Your task to perform on an android device: change timer sound Image 0: 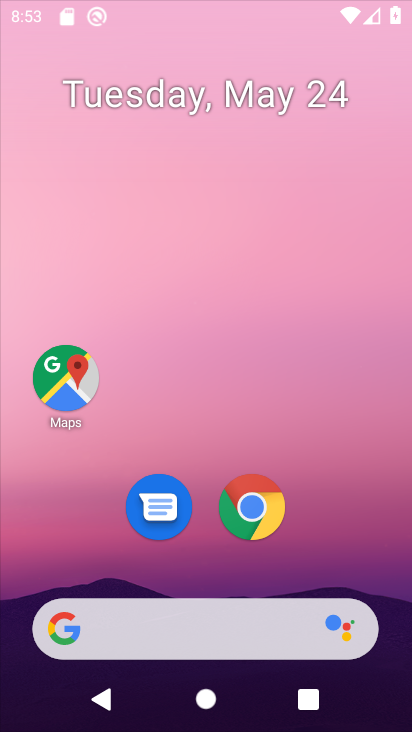
Step 0: drag from (227, 467) to (267, 226)
Your task to perform on an android device: change timer sound Image 1: 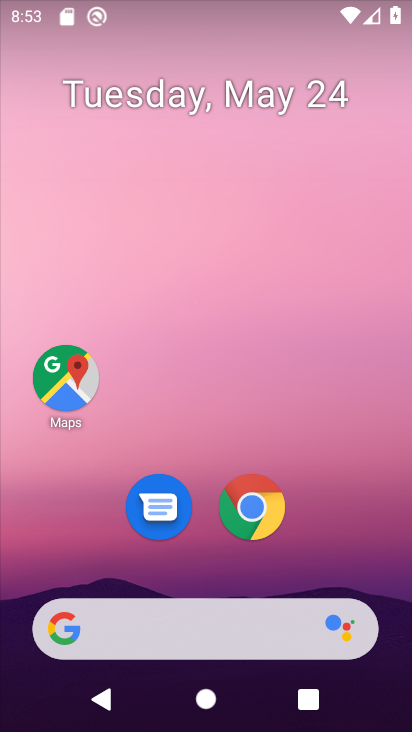
Step 1: drag from (208, 500) to (262, 137)
Your task to perform on an android device: change timer sound Image 2: 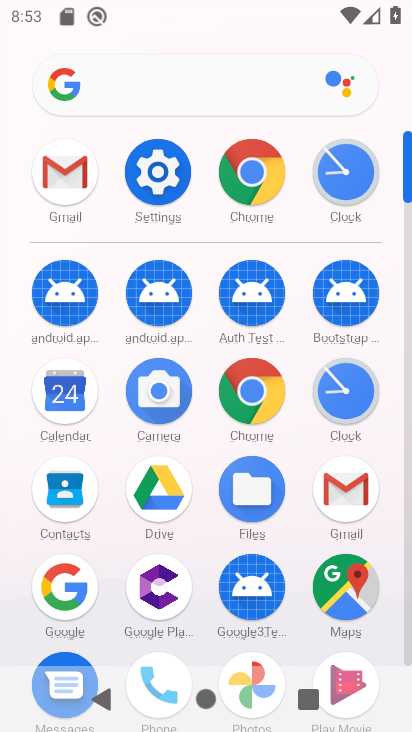
Step 2: click (340, 400)
Your task to perform on an android device: change timer sound Image 3: 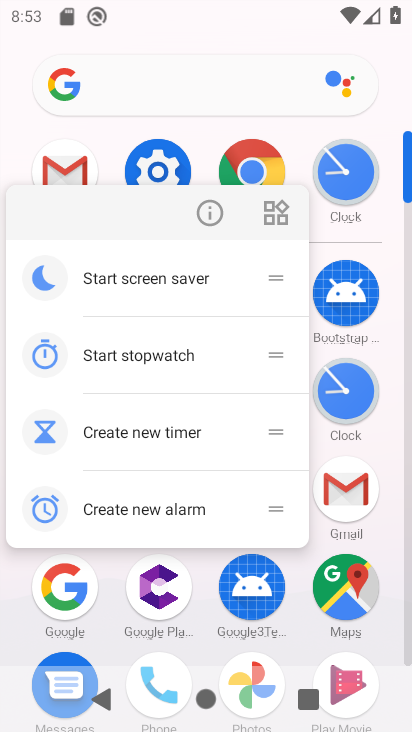
Step 3: click (218, 214)
Your task to perform on an android device: change timer sound Image 4: 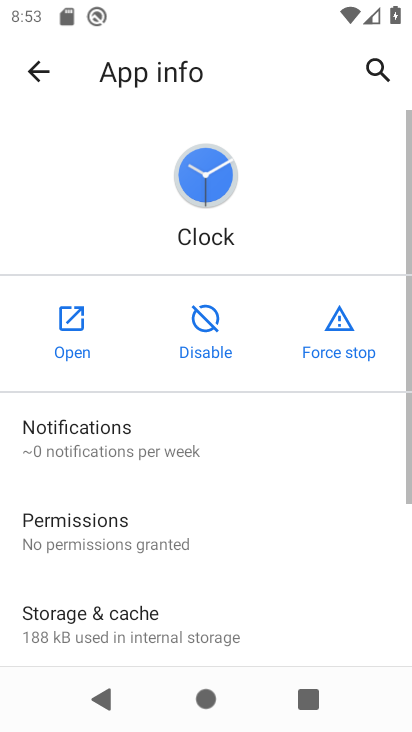
Step 4: click (73, 325)
Your task to perform on an android device: change timer sound Image 5: 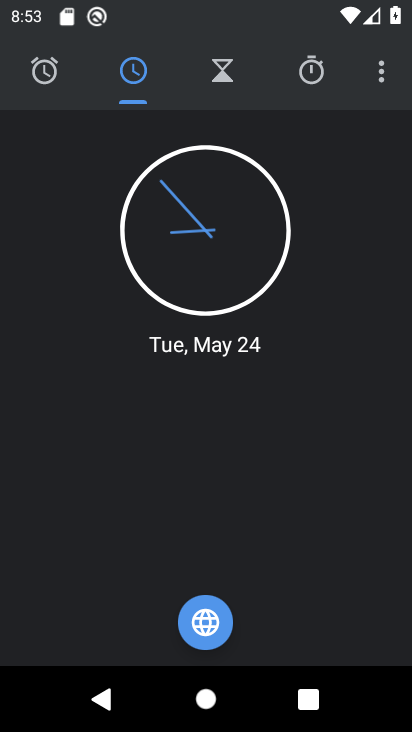
Step 5: click (381, 78)
Your task to perform on an android device: change timer sound Image 6: 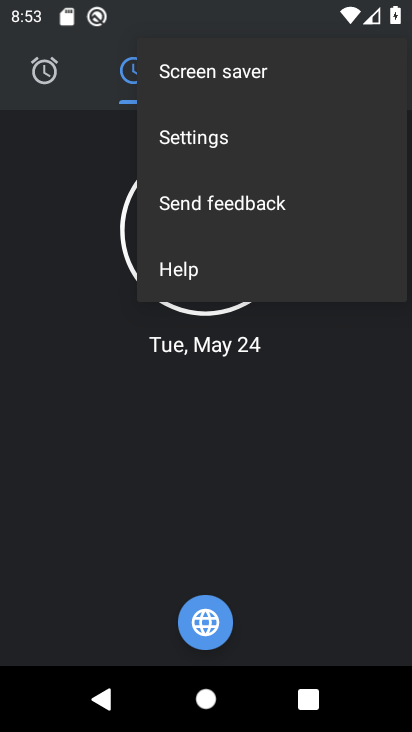
Step 6: click (226, 134)
Your task to perform on an android device: change timer sound Image 7: 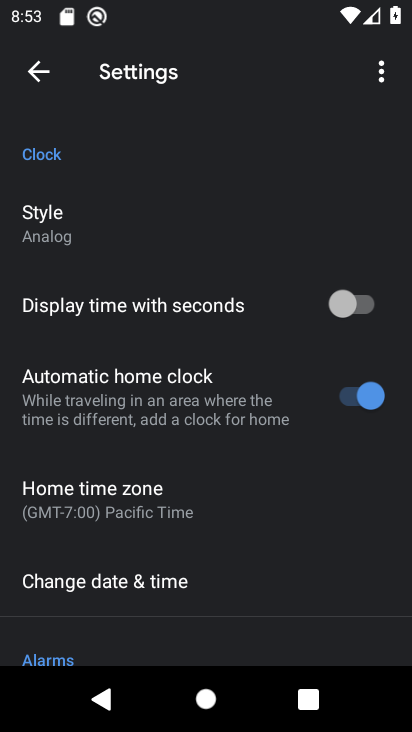
Step 7: drag from (227, 514) to (252, 107)
Your task to perform on an android device: change timer sound Image 8: 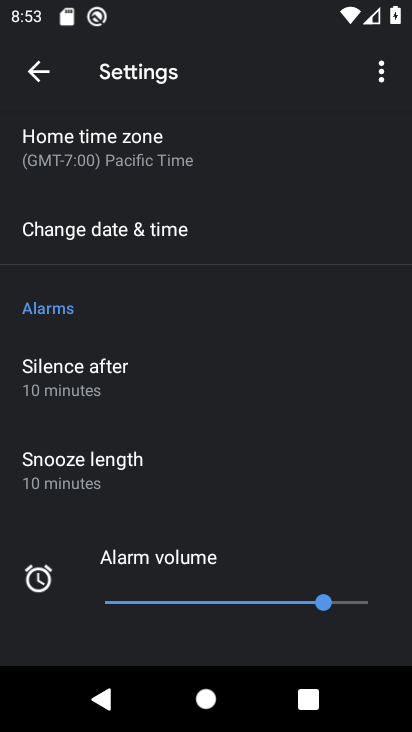
Step 8: drag from (146, 430) to (242, 137)
Your task to perform on an android device: change timer sound Image 9: 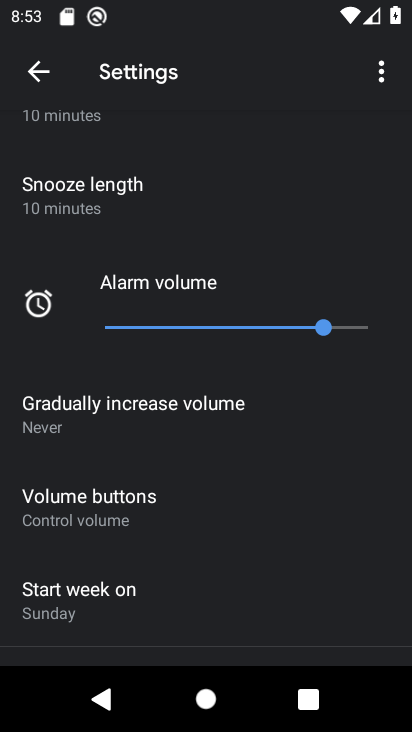
Step 9: drag from (128, 489) to (230, 102)
Your task to perform on an android device: change timer sound Image 10: 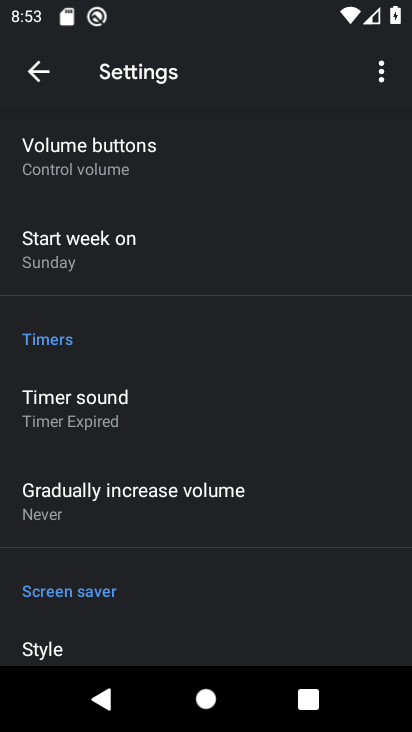
Step 10: click (164, 422)
Your task to perform on an android device: change timer sound Image 11: 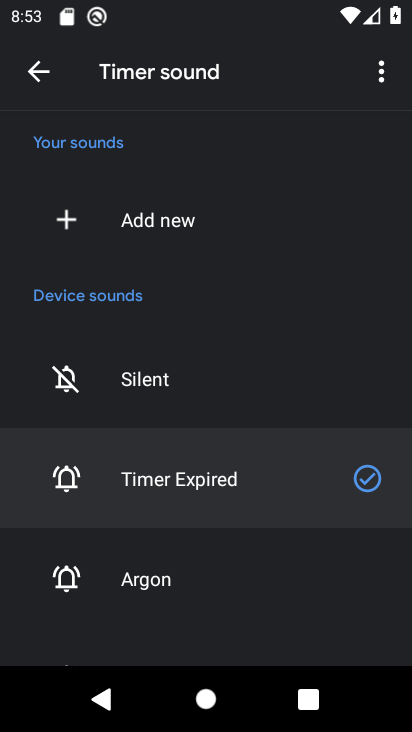
Step 11: click (232, 586)
Your task to perform on an android device: change timer sound Image 12: 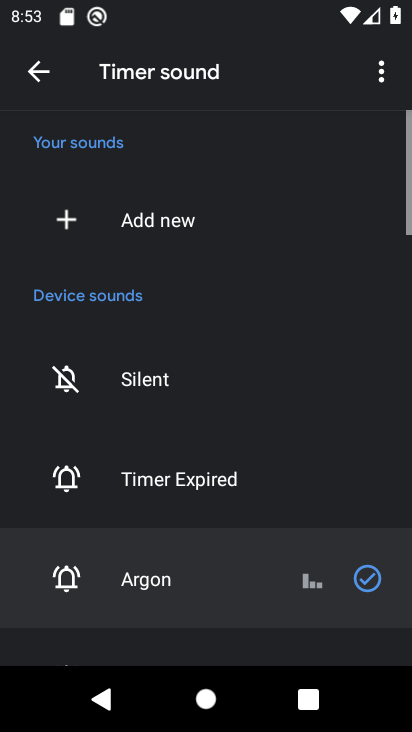
Step 12: task complete